Your task to perform on an android device: Open the web browser Image 0: 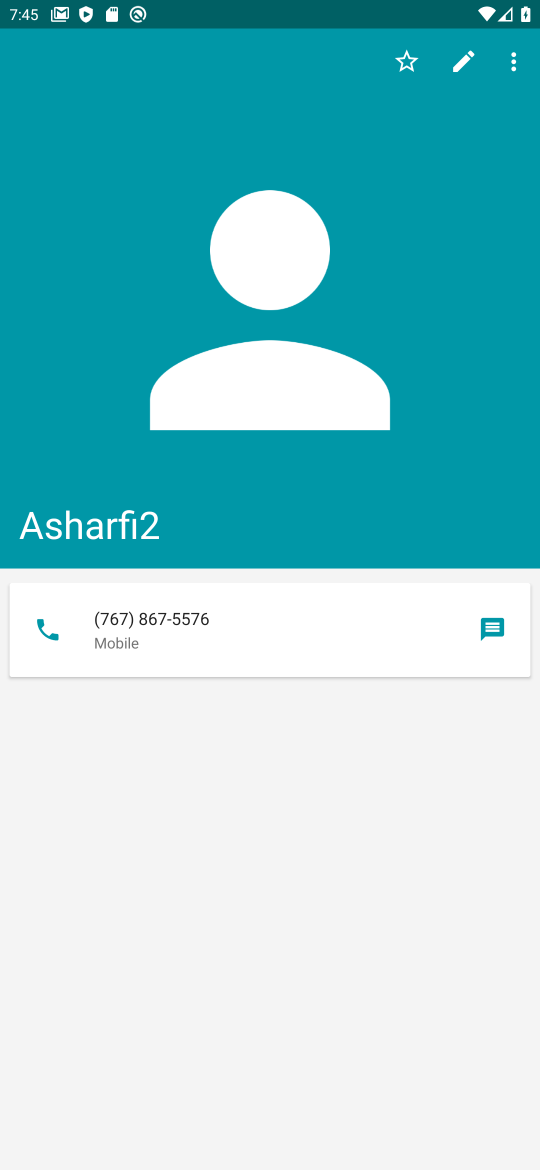
Step 0: press home button
Your task to perform on an android device: Open the web browser Image 1: 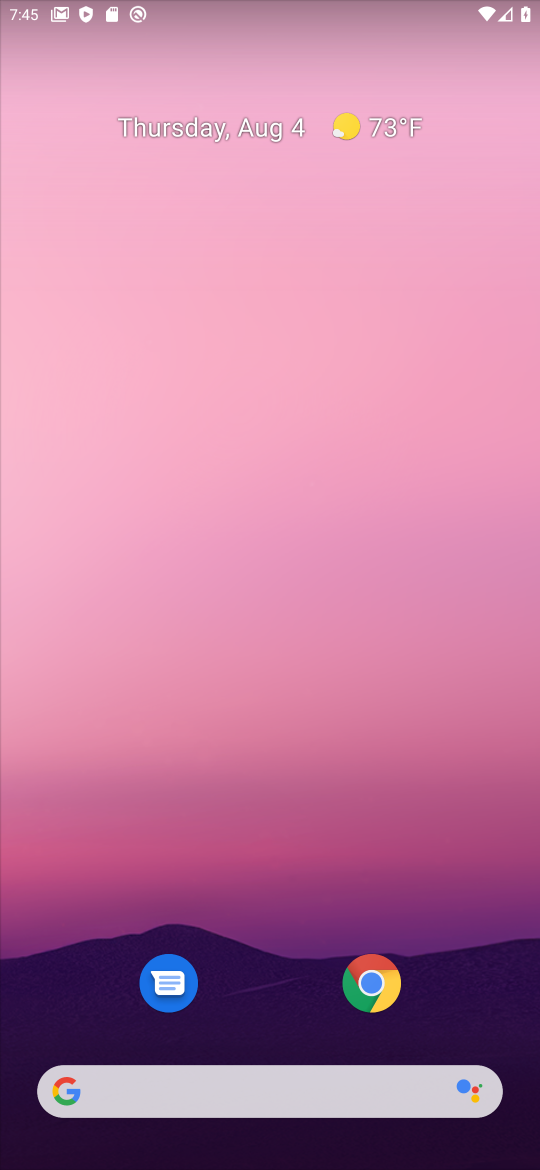
Step 1: click (361, 986)
Your task to perform on an android device: Open the web browser Image 2: 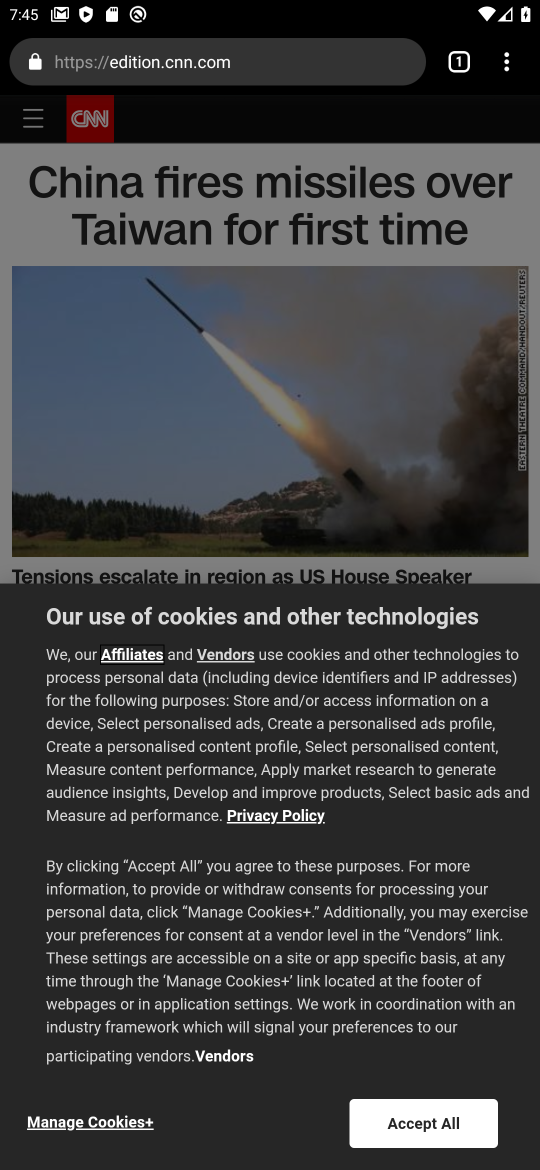
Step 2: task complete